Your task to perform on an android device: Open the map Image 0: 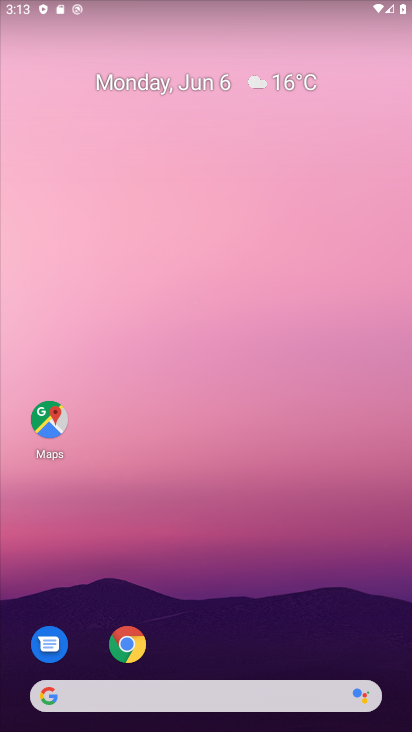
Step 0: click (51, 415)
Your task to perform on an android device: Open the map Image 1: 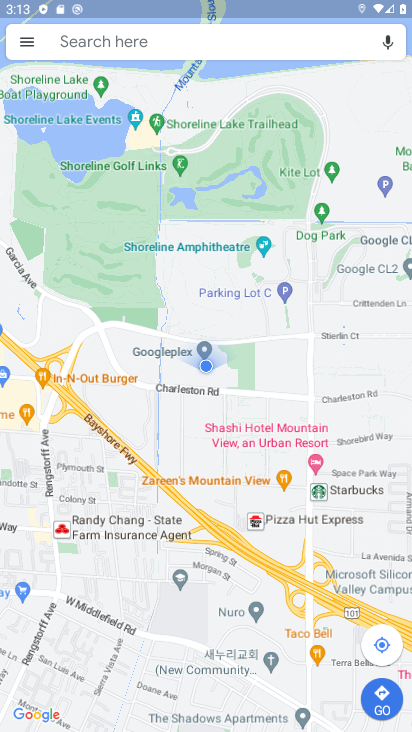
Step 1: task complete